Your task to perform on an android device: all mails in gmail Image 0: 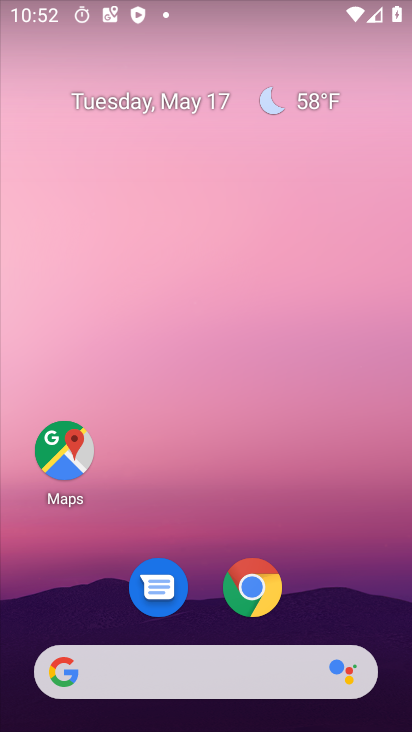
Step 0: drag from (328, 606) to (223, 65)
Your task to perform on an android device: all mails in gmail Image 1: 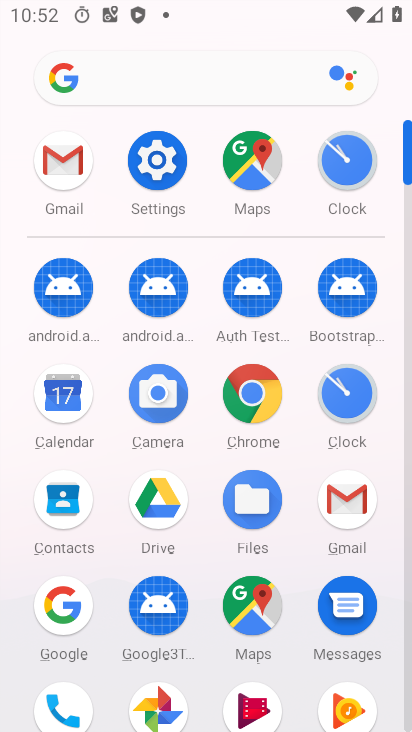
Step 1: click (345, 499)
Your task to perform on an android device: all mails in gmail Image 2: 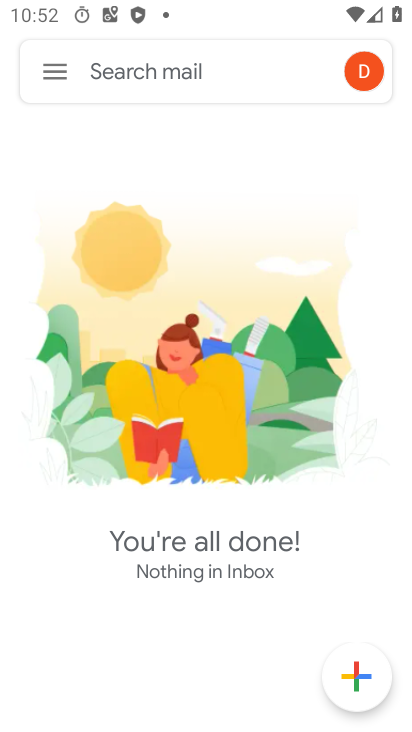
Step 2: click (51, 74)
Your task to perform on an android device: all mails in gmail Image 3: 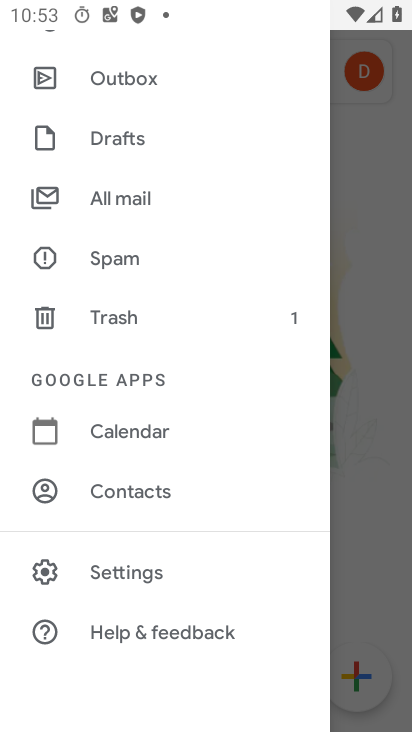
Step 3: click (128, 196)
Your task to perform on an android device: all mails in gmail Image 4: 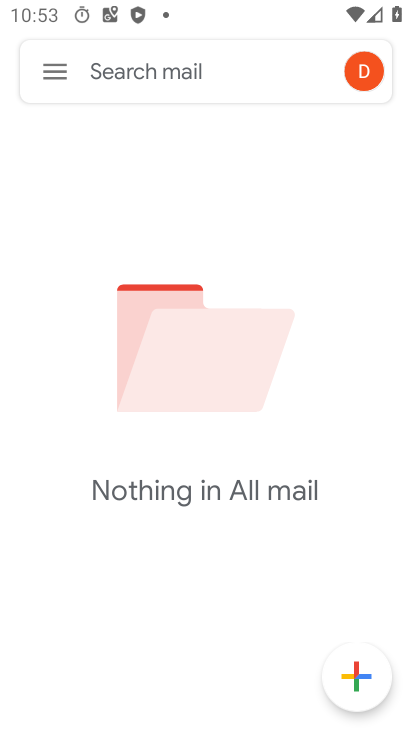
Step 4: task complete